Your task to perform on an android device: turn on location history Image 0: 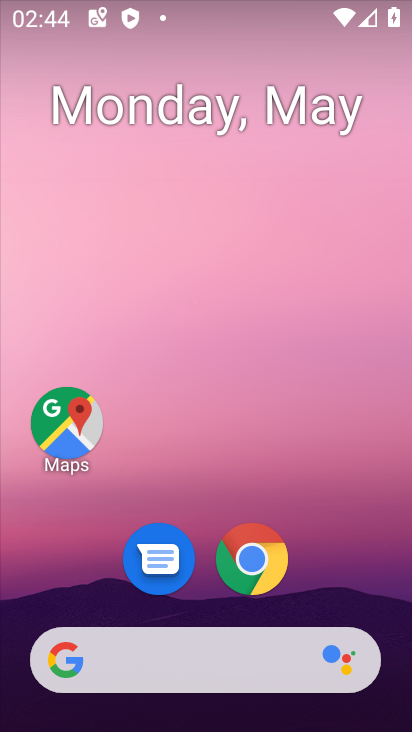
Step 0: drag from (193, 714) to (192, 180)
Your task to perform on an android device: turn on location history Image 1: 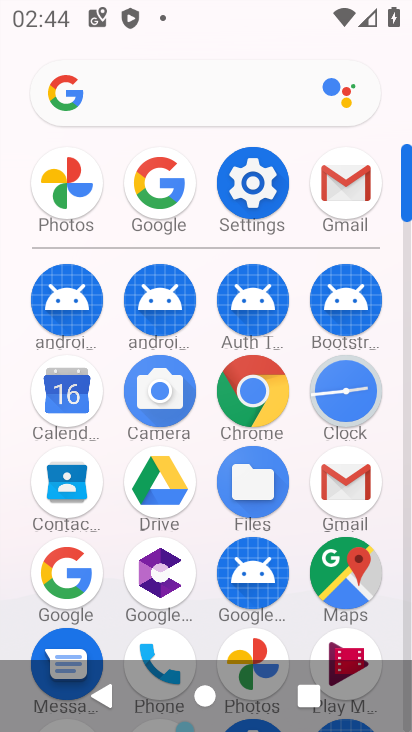
Step 1: click (257, 193)
Your task to perform on an android device: turn on location history Image 2: 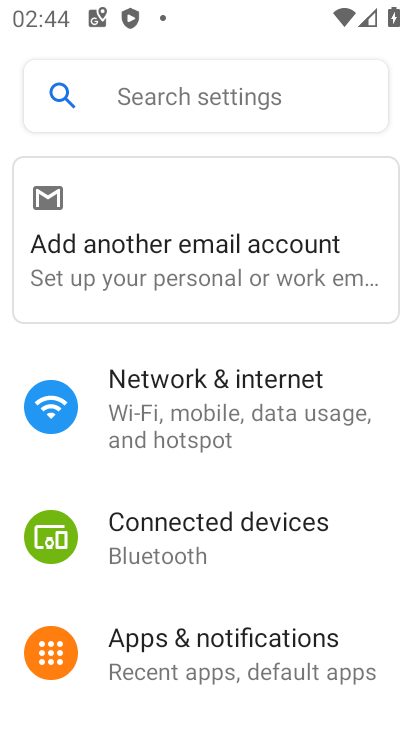
Step 2: drag from (219, 646) to (177, 201)
Your task to perform on an android device: turn on location history Image 3: 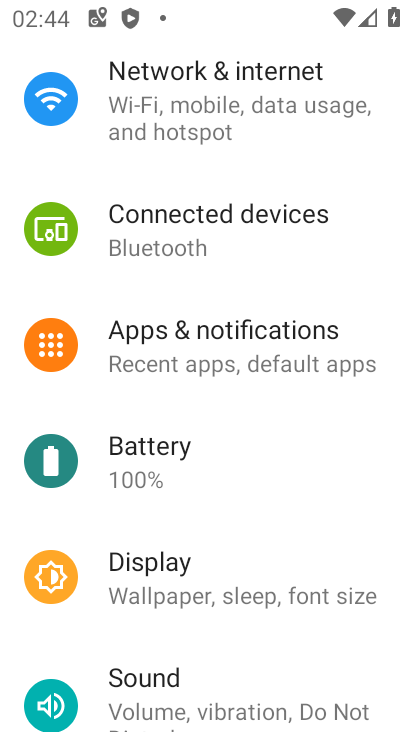
Step 3: drag from (267, 676) to (243, 110)
Your task to perform on an android device: turn on location history Image 4: 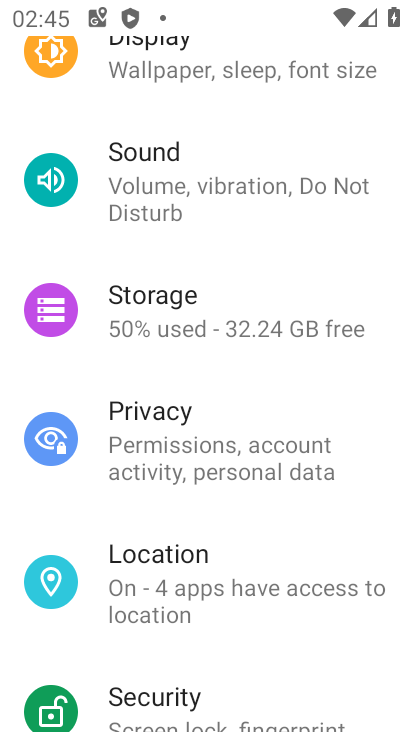
Step 4: drag from (259, 679) to (250, 152)
Your task to perform on an android device: turn on location history Image 5: 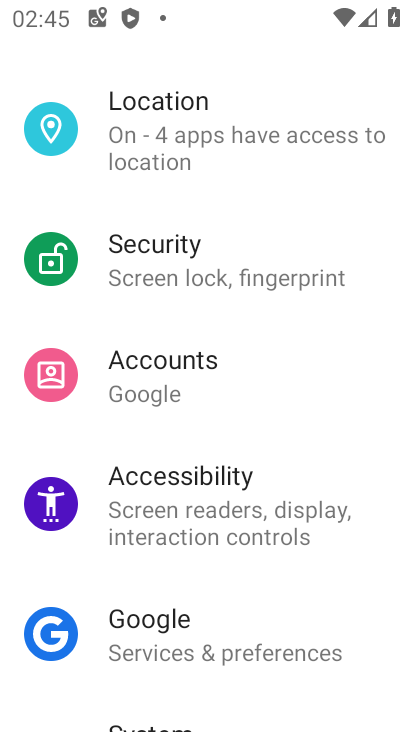
Step 5: click (250, 153)
Your task to perform on an android device: turn on location history Image 6: 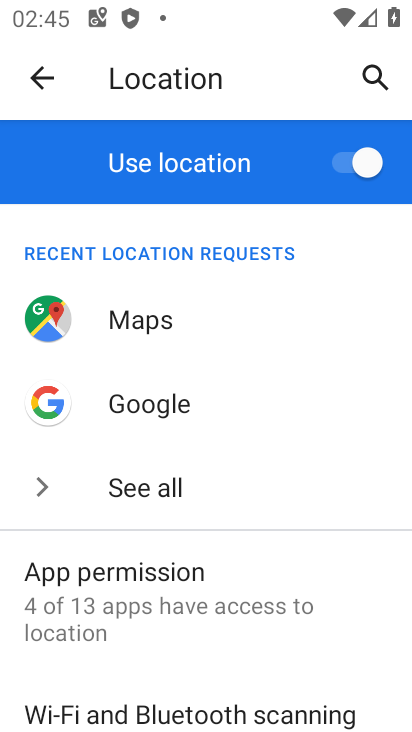
Step 6: click (379, 156)
Your task to perform on an android device: turn on location history Image 7: 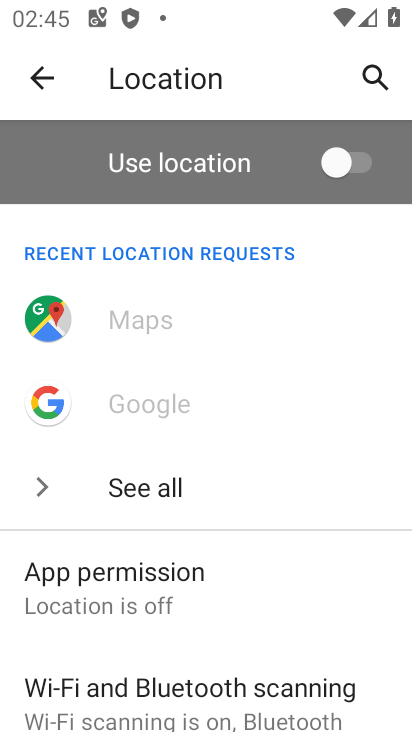
Step 7: click (361, 174)
Your task to perform on an android device: turn on location history Image 8: 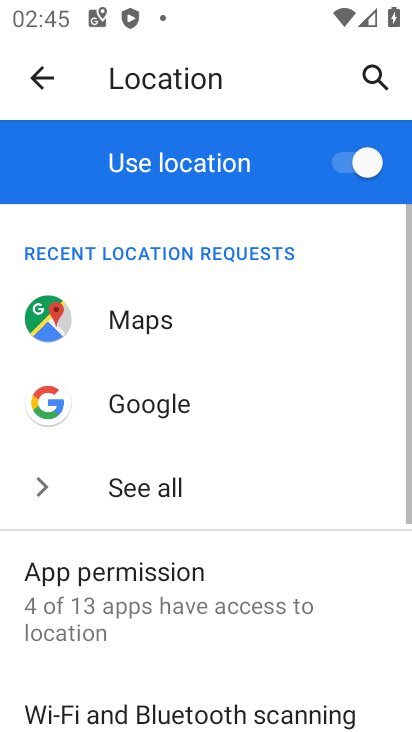
Step 8: task complete